Your task to perform on an android device: add a contact in the contacts app Image 0: 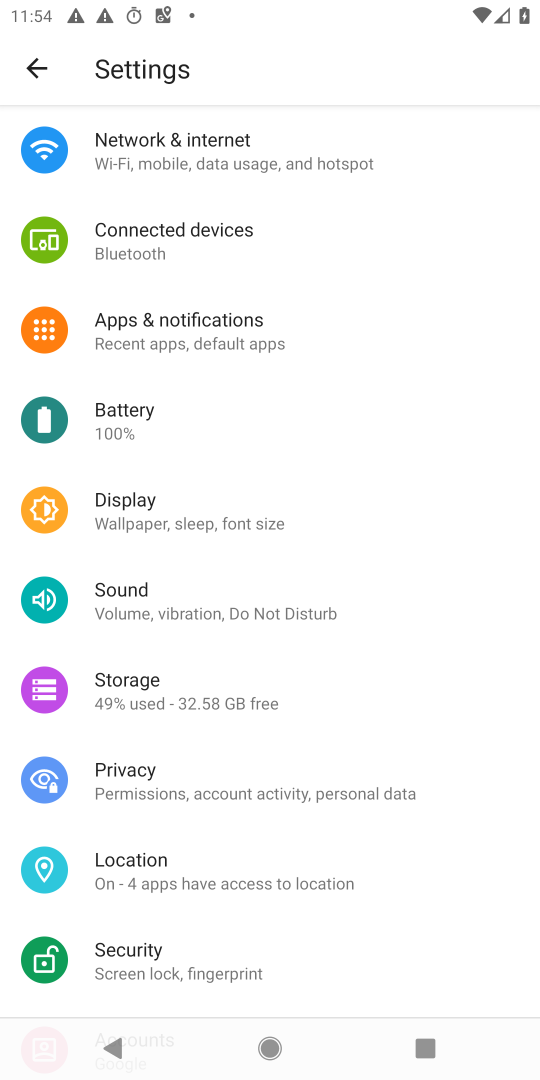
Step 0: press home button
Your task to perform on an android device: add a contact in the contacts app Image 1: 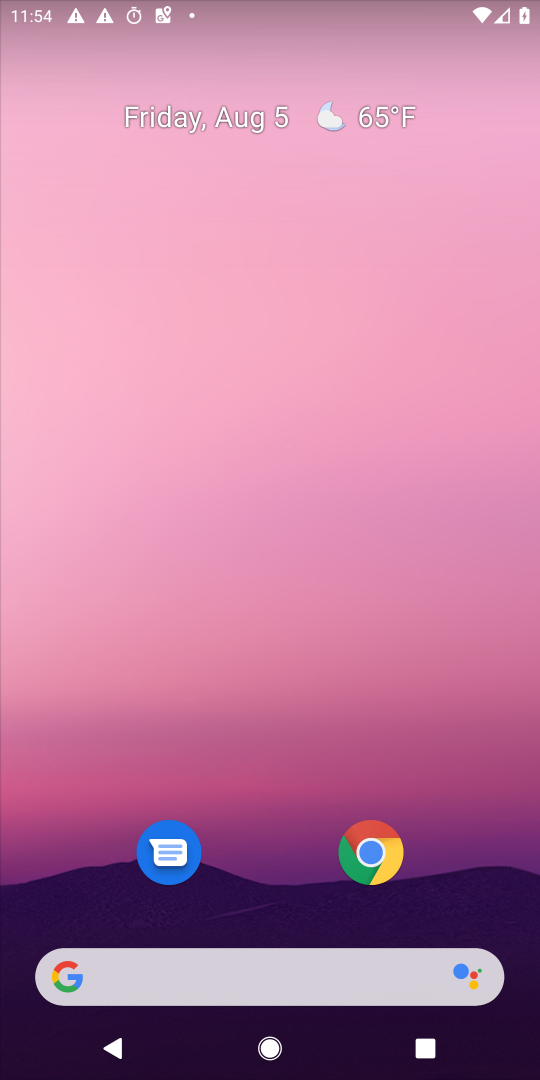
Step 1: drag from (357, 1013) to (403, 256)
Your task to perform on an android device: add a contact in the contacts app Image 2: 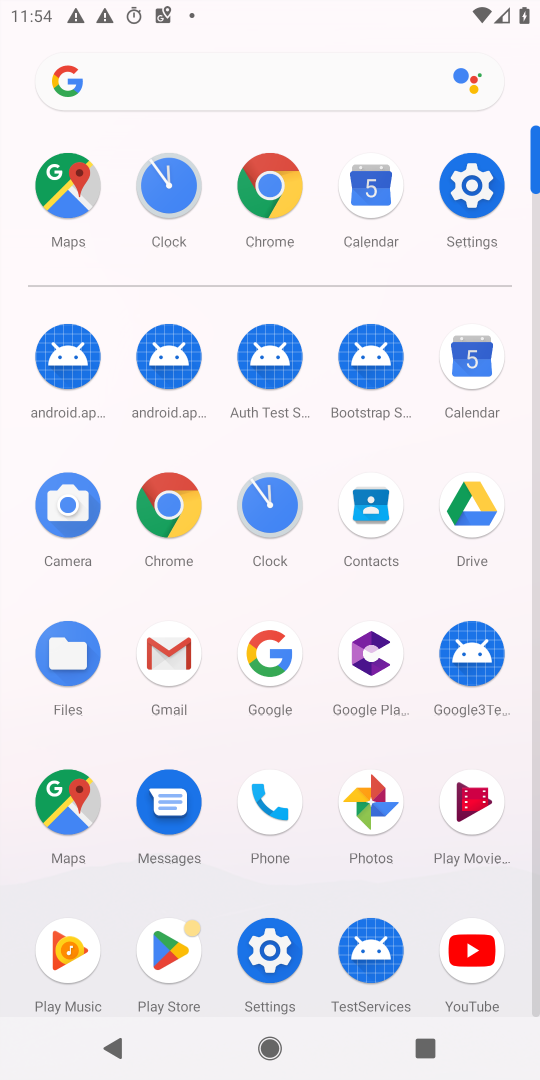
Step 2: click (270, 804)
Your task to perform on an android device: add a contact in the contacts app Image 3: 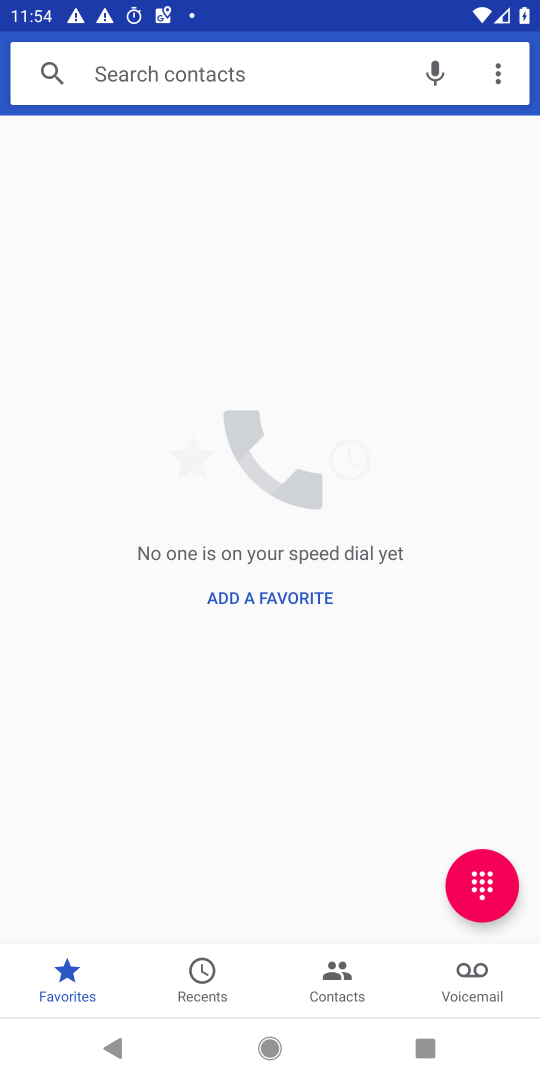
Step 3: click (342, 985)
Your task to perform on an android device: add a contact in the contacts app Image 4: 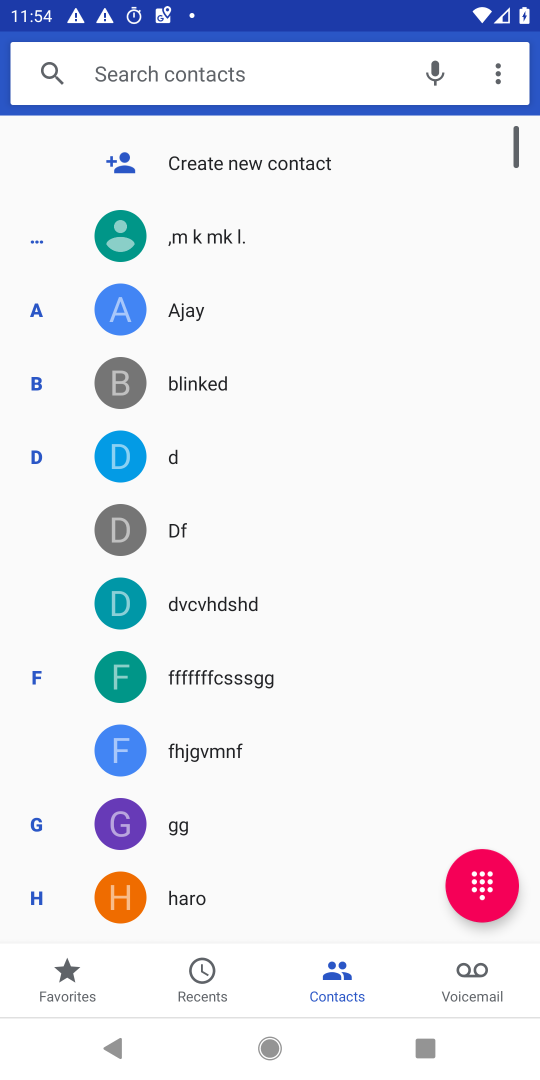
Step 4: click (186, 188)
Your task to perform on an android device: add a contact in the contacts app Image 5: 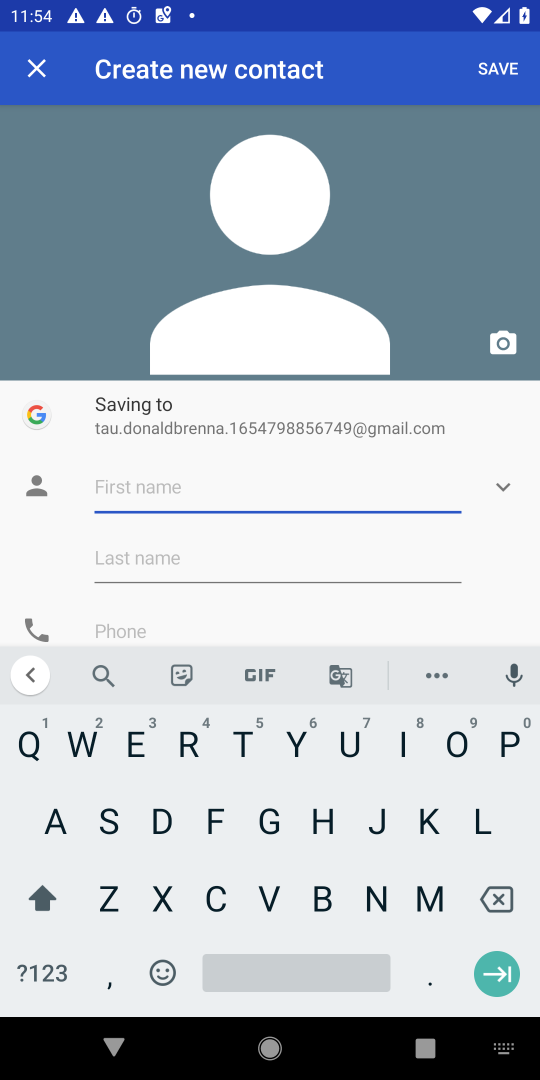
Step 5: click (168, 811)
Your task to perform on an android device: add a contact in the contacts app Image 6: 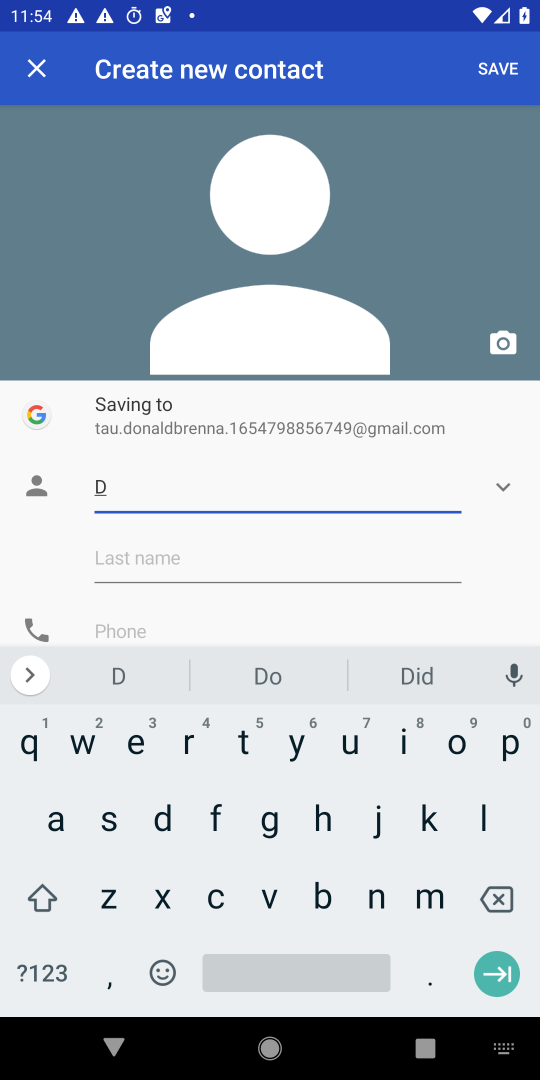
Step 6: click (110, 896)
Your task to perform on an android device: add a contact in the contacts app Image 7: 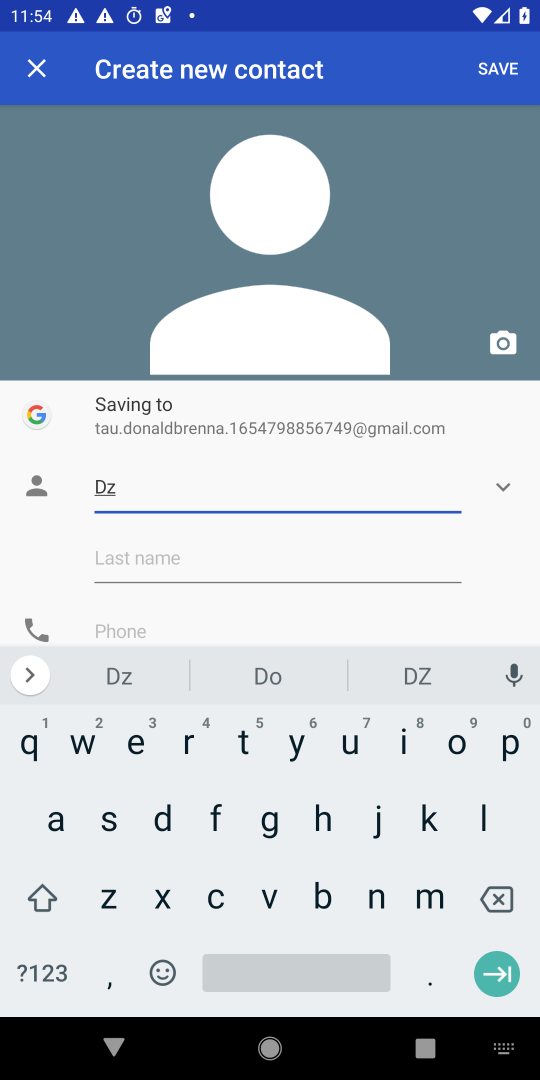
Step 7: click (150, 886)
Your task to perform on an android device: add a contact in the contacts app Image 8: 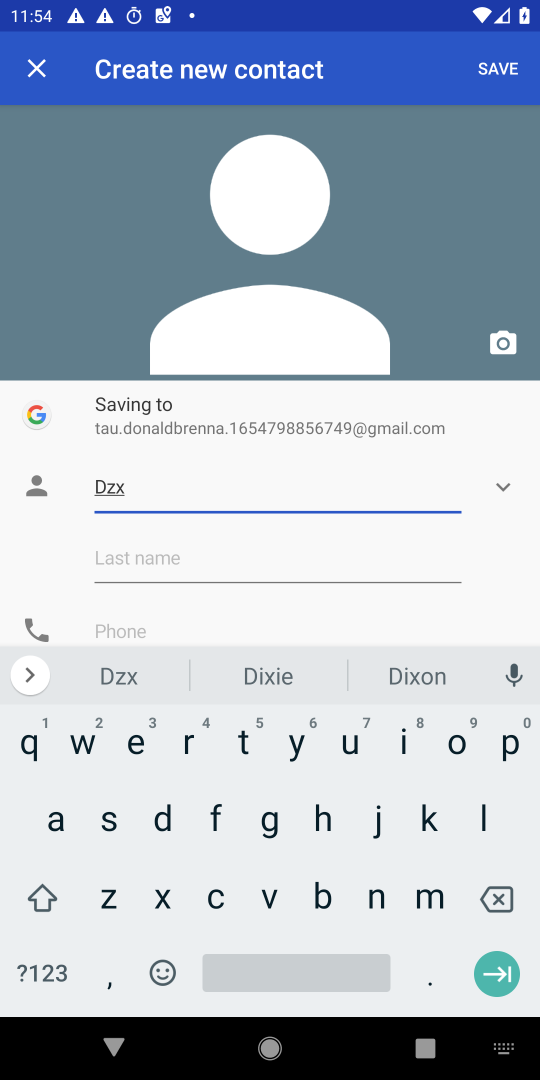
Step 8: click (145, 618)
Your task to perform on an android device: add a contact in the contacts app Image 9: 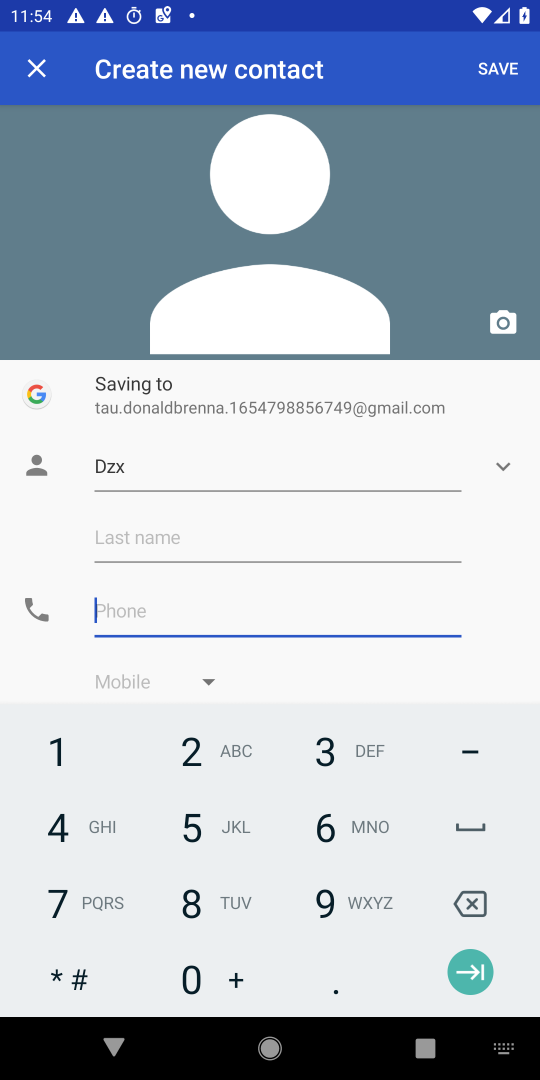
Step 9: click (186, 821)
Your task to perform on an android device: add a contact in the contacts app Image 10: 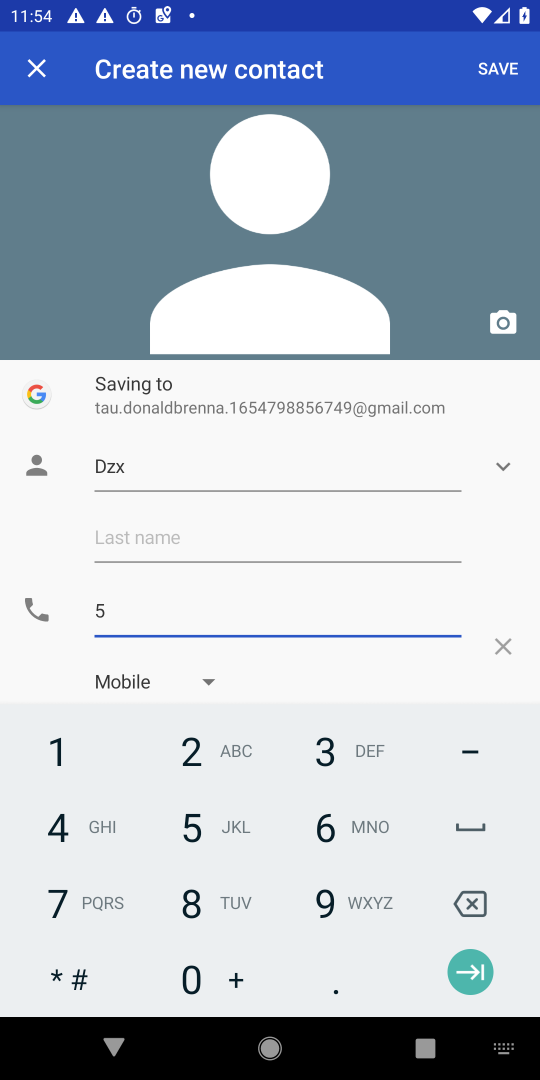
Step 10: click (330, 858)
Your task to perform on an android device: add a contact in the contacts app Image 11: 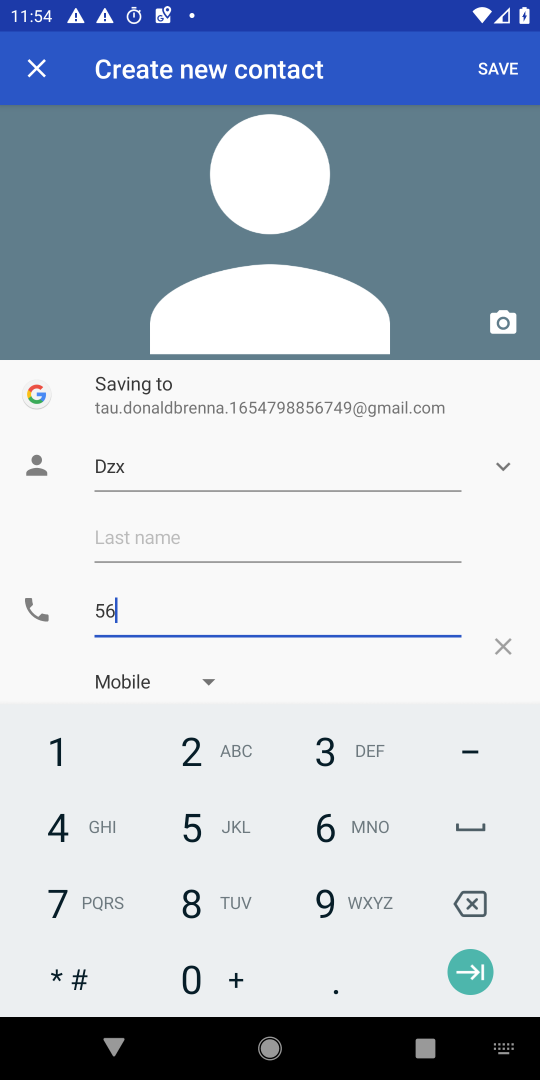
Step 11: click (304, 922)
Your task to perform on an android device: add a contact in the contacts app Image 12: 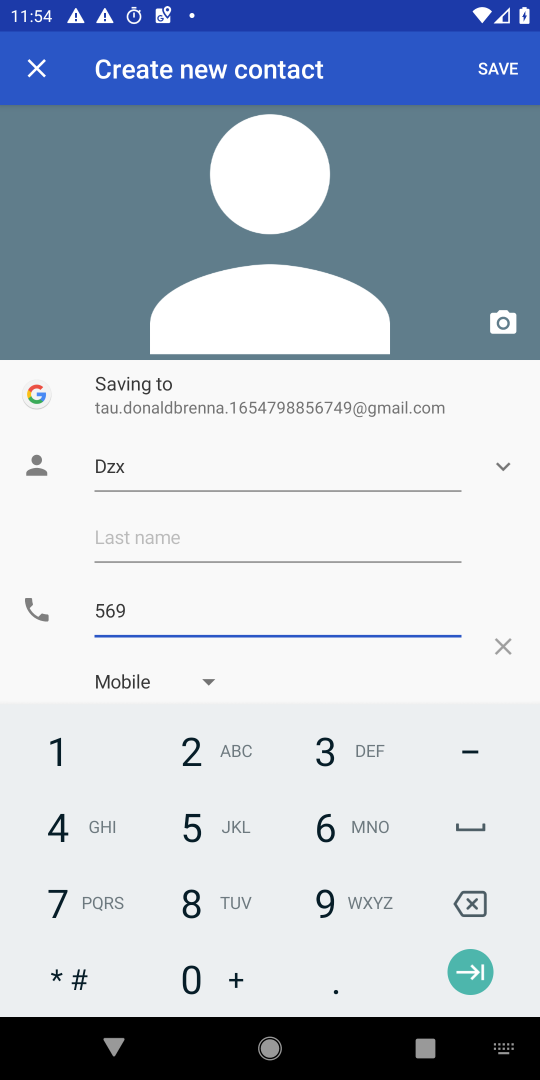
Step 12: click (184, 826)
Your task to perform on an android device: add a contact in the contacts app Image 13: 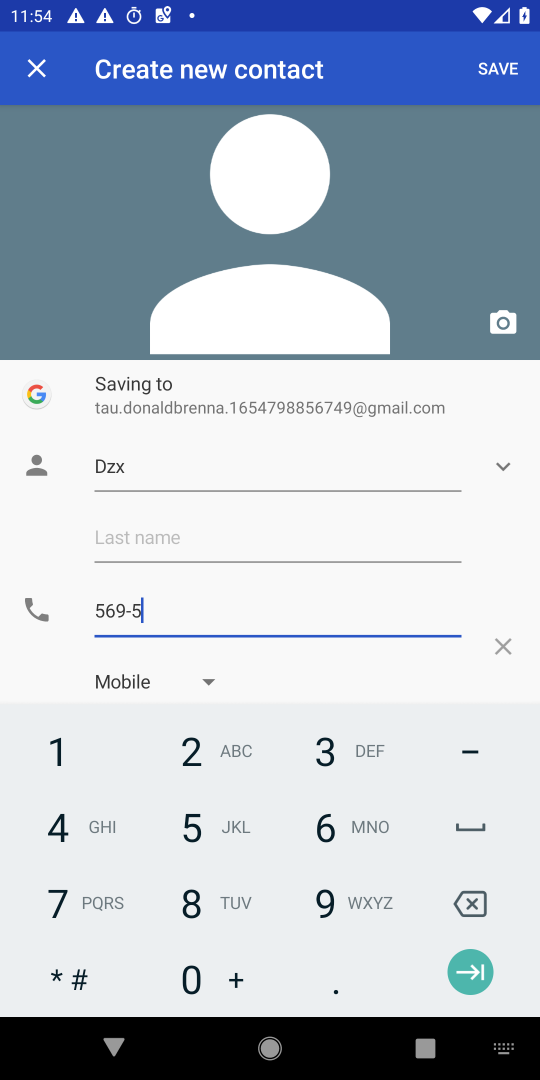
Step 13: click (495, 72)
Your task to perform on an android device: add a contact in the contacts app Image 14: 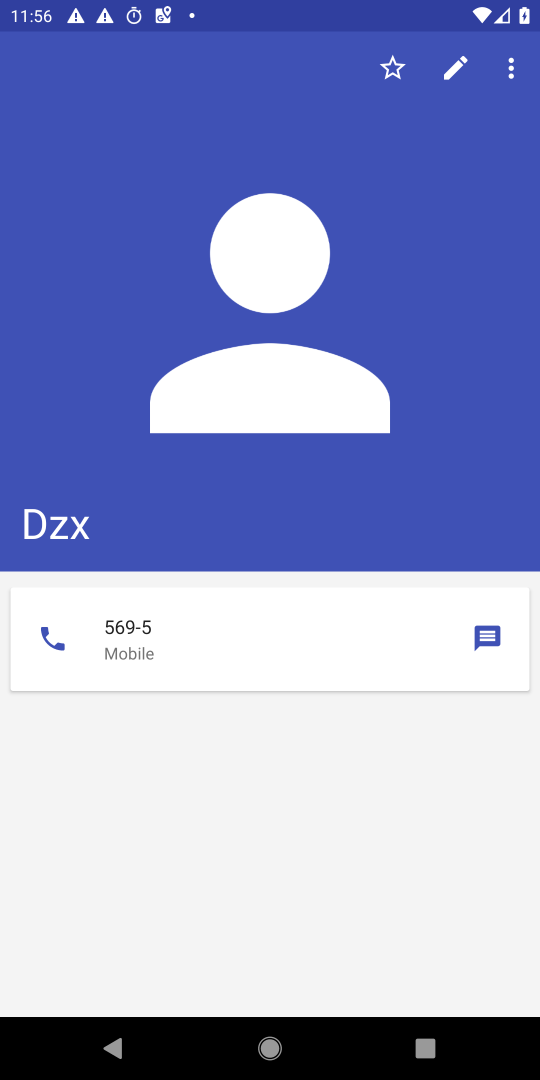
Step 14: task complete